Your task to perform on an android device: change keyboard looks Image 0: 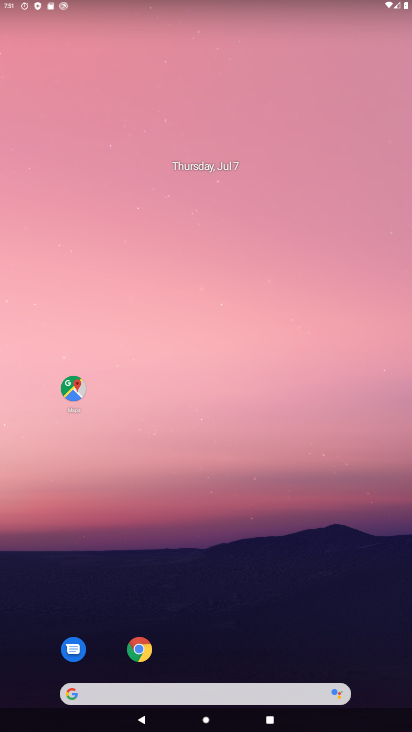
Step 0: drag from (213, 656) to (212, 134)
Your task to perform on an android device: change keyboard looks Image 1: 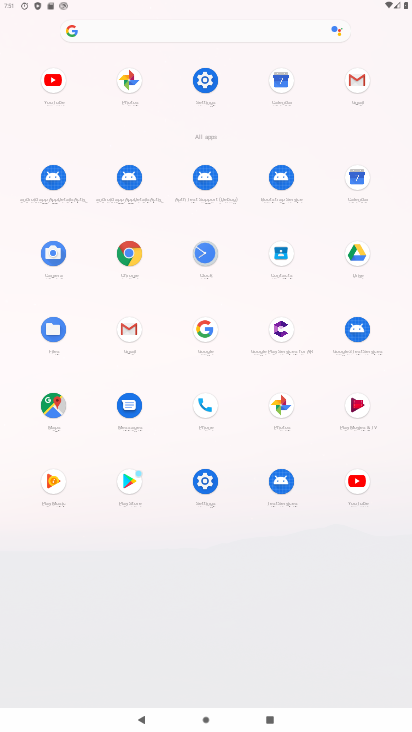
Step 1: click (207, 475)
Your task to perform on an android device: change keyboard looks Image 2: 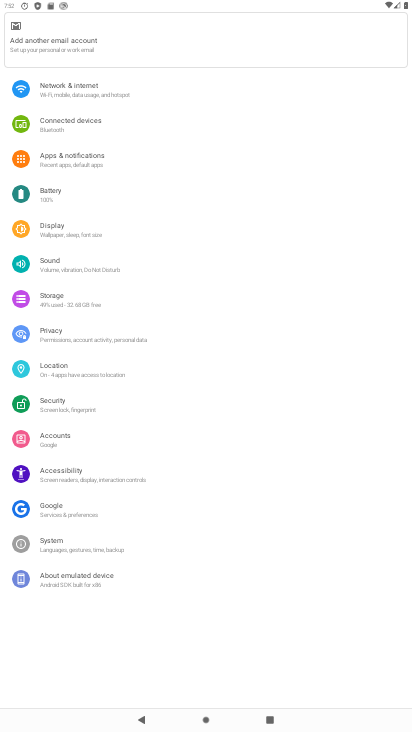
Step 2: click (61, 542)
Your task to perform on an android device: change keyboard looks Image 3: 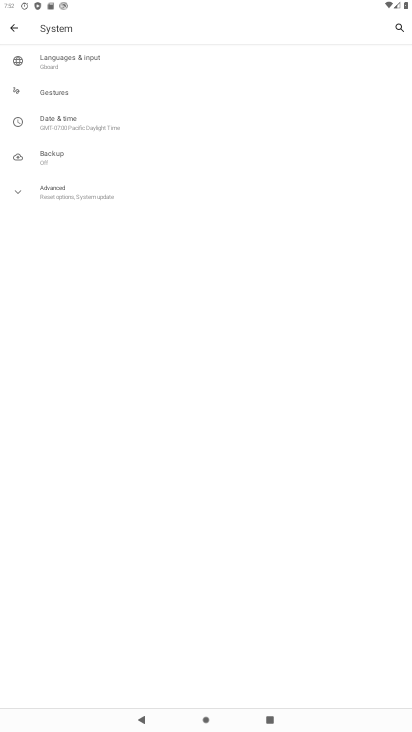
Step 3: click (68, 54)
Your task to perform on an android device: change keyboard looks Image 4: 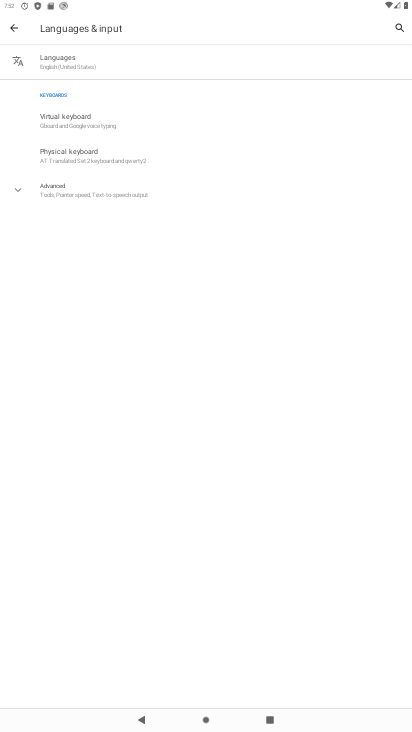
Step 4: click (91, 123)
Your task to perform on an android device: change keyboard looks Image 5: 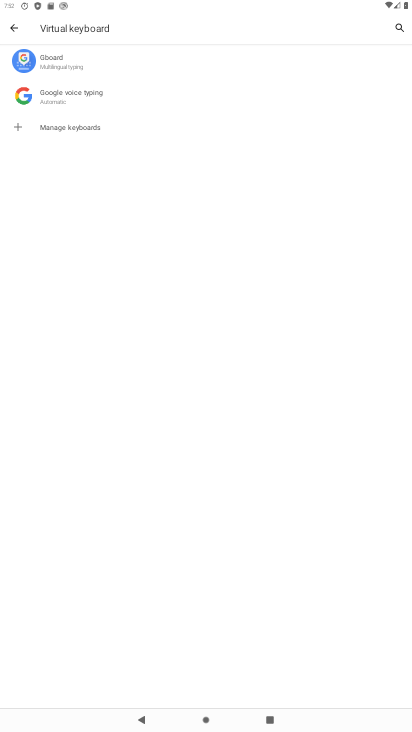
Step 5: click (71, 63)
Your task to perform on an android device: change keyboard looks Image 6: 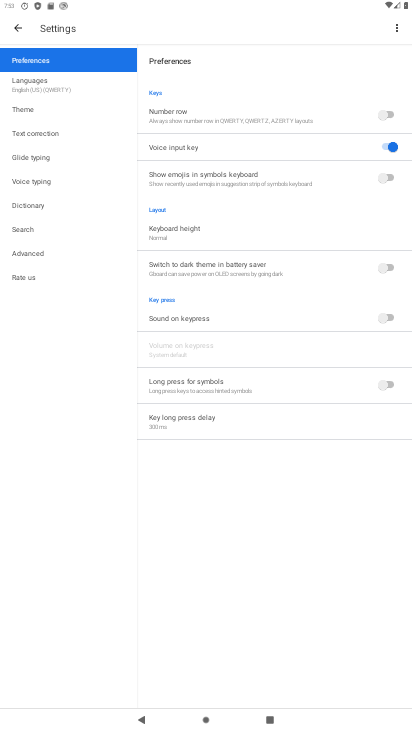
Step 6: click (35, 107)
Your task to perform on an android device: change keyboard looks Image 7: 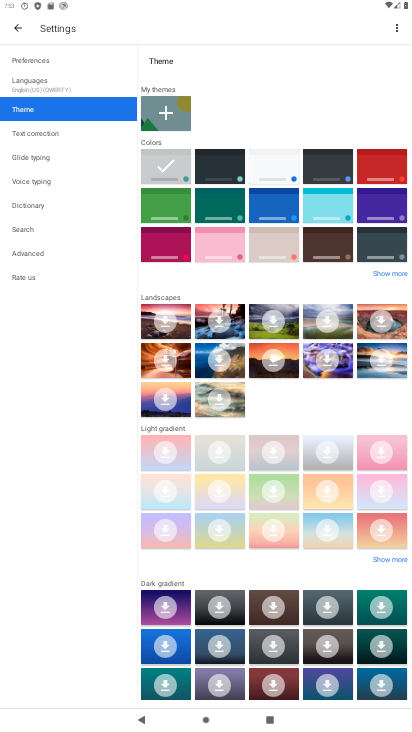
Step 7: click (275, 165)
Your task to perform on an android device: change keyboard looks Image 8: 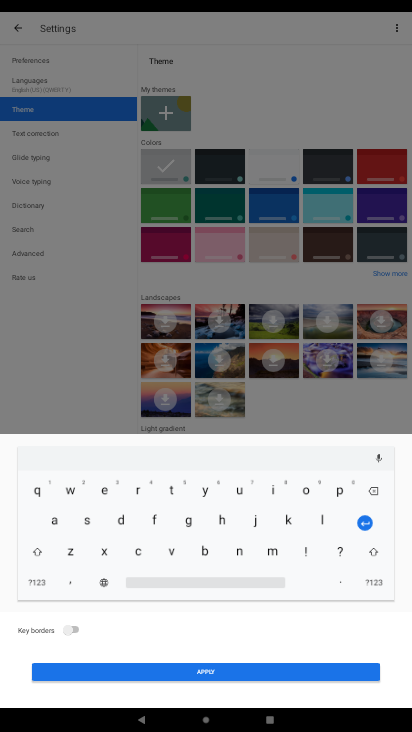
Step 8: click (216, 672)
Your task to perform on an android device: change keyboard looks Image 9: 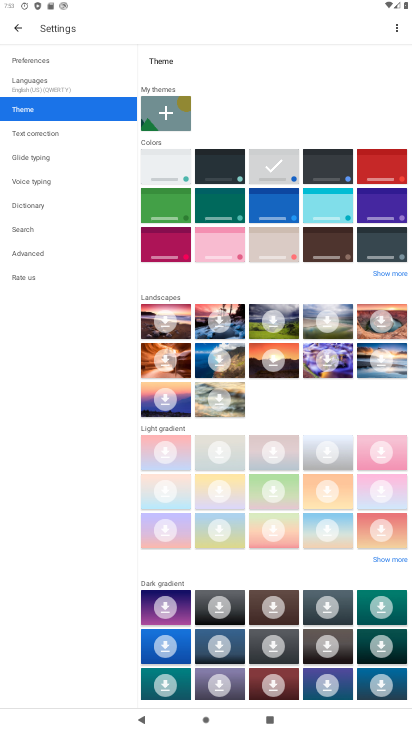
Step 9: task complete